Your task to perform on an android device: Go to CNN.com Image 0: 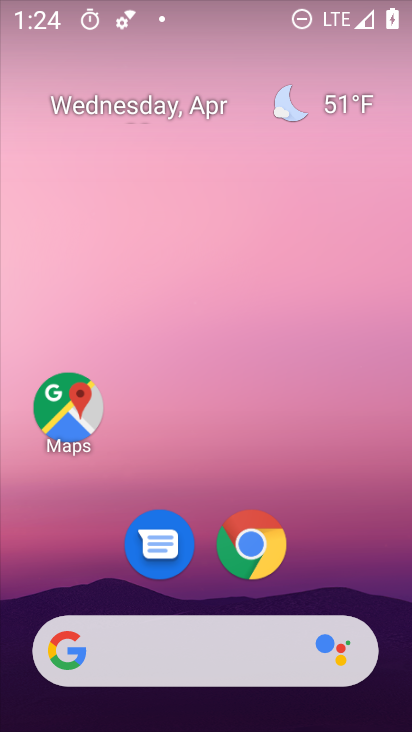
Step 0: drag from (349, 556) to (351, 196)
Your task to perform on an android device: Go to CNN.com Image 1: 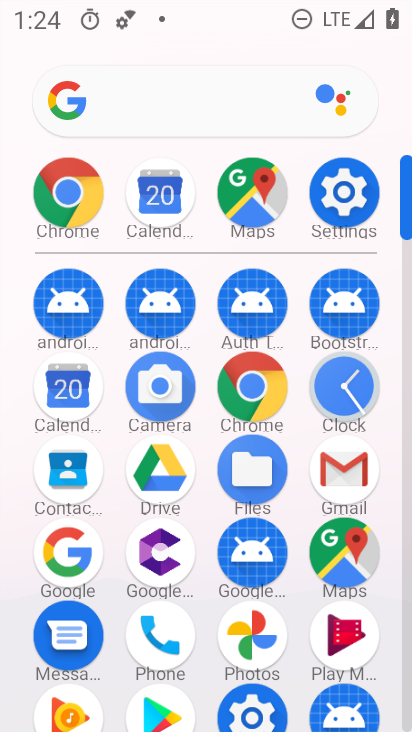
Step 1: click (265, 394)
Your task to perform on an android device: Go to CNN.com Image 2: 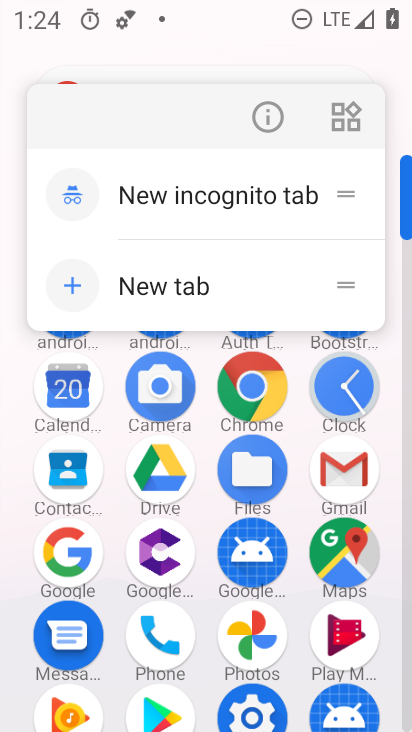
Step 2: click (243, 383)
Your task to perform on an android device: Go to CNN.com Image 3: 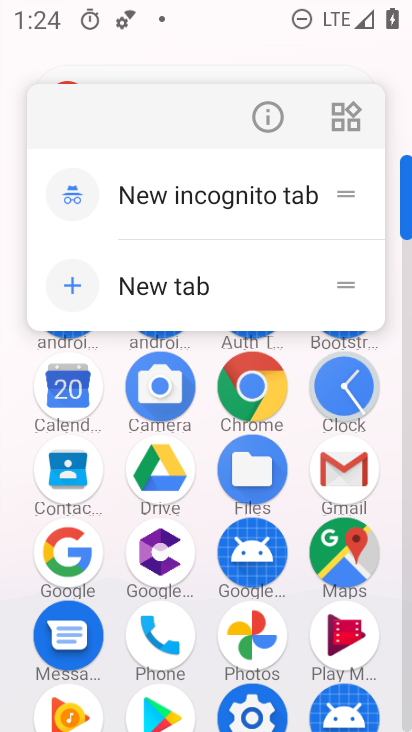
Step 3: click (252, 400)
Your task to perform on an android device: Go to CNN.com Image 4: 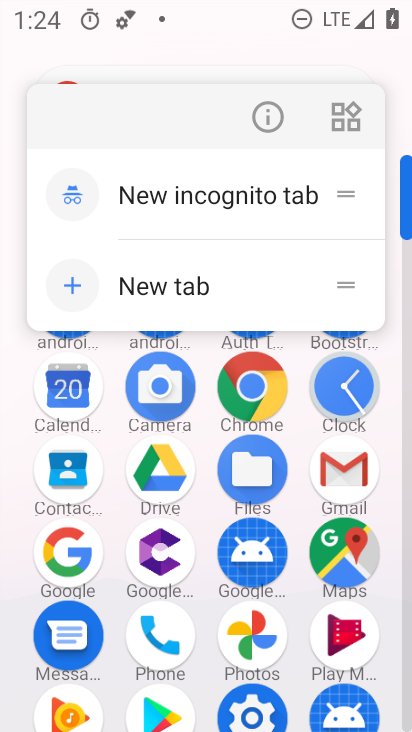
Step 4: click (255, 376)
Your task to perform on an android device: Go to CNN.com Image 5: 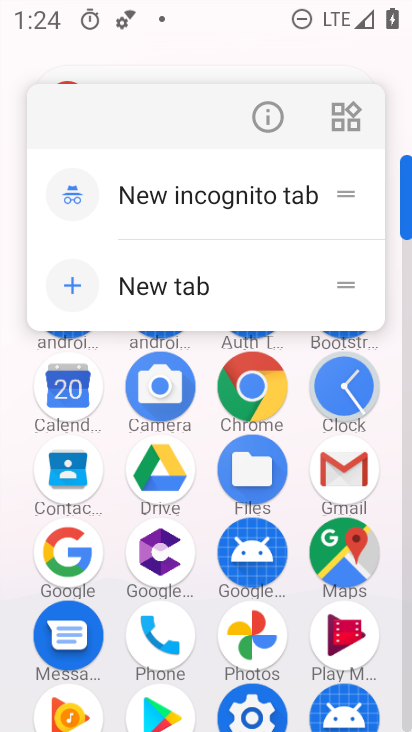
Step 5: click (278, 389)
Your task to perform on an android device: Go to CNN.com Image 6: 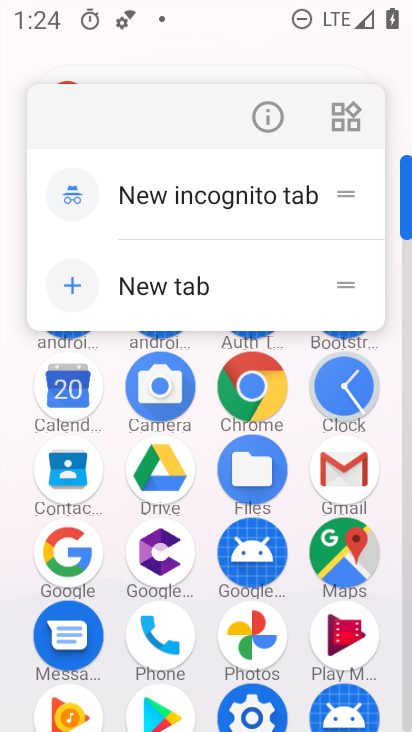
Step 6: click (255, 388)
Your task to perform on an android device: Go to CNN.com Image 7: 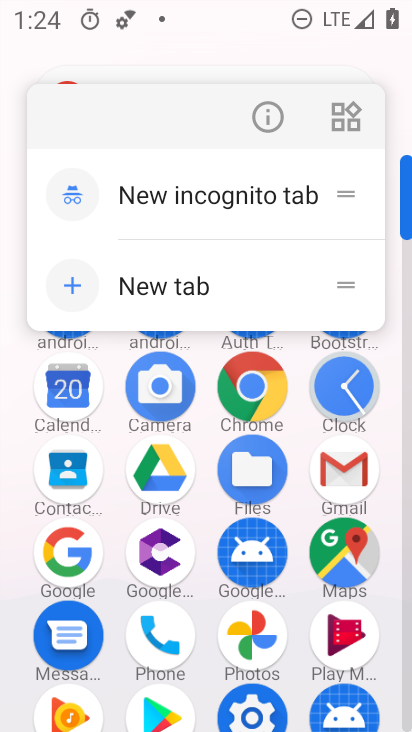
Step 7: click (208, 381)
Your task to perform on an android device: Go to CNN.com Image 8: 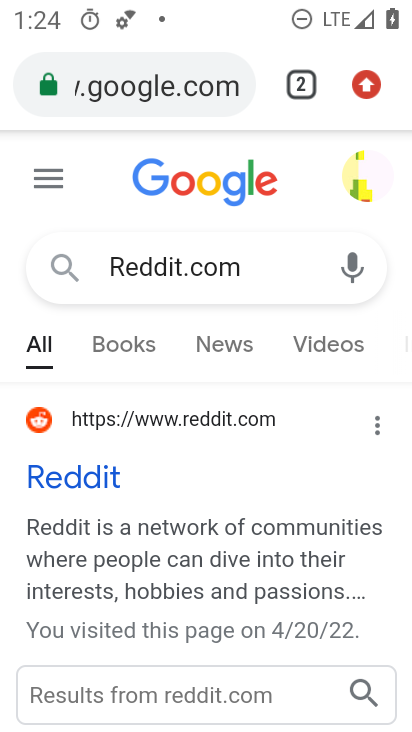
Step 8: click (267, 278)
Your task to perform on an android device: Go to CNN.com Image 9: 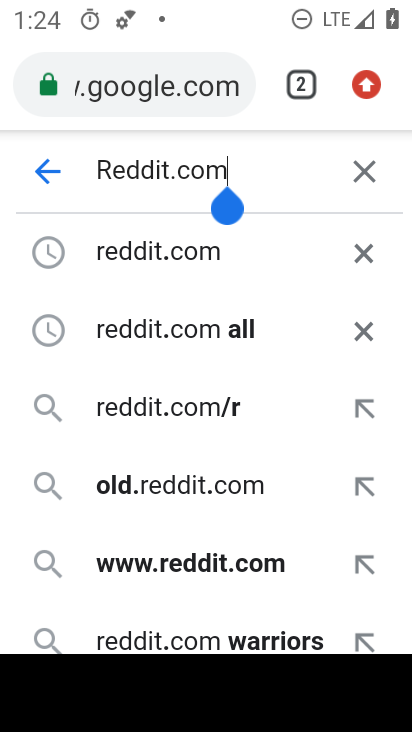
Step 9: click (361, 153)
Your task to perform on an android device: Go to CNN.com Image 10: 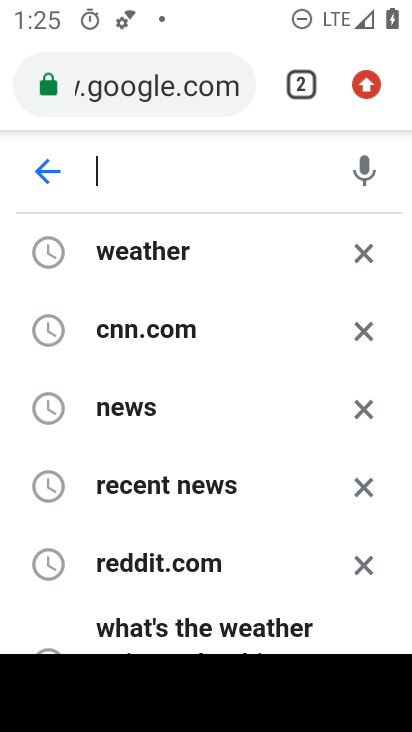
Step 10: type "cnn.com"
Your task to perform on an android device: Go to CNN.com Image 11: 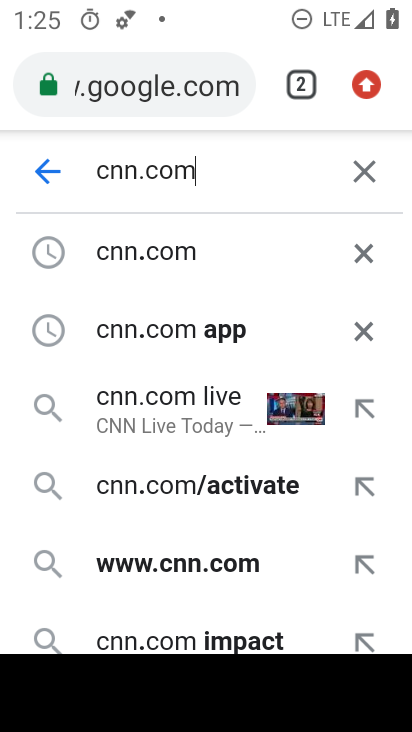
Step 11: click (159, 253)
Your task to perform on an android device: Go to CNN.com Image 12: 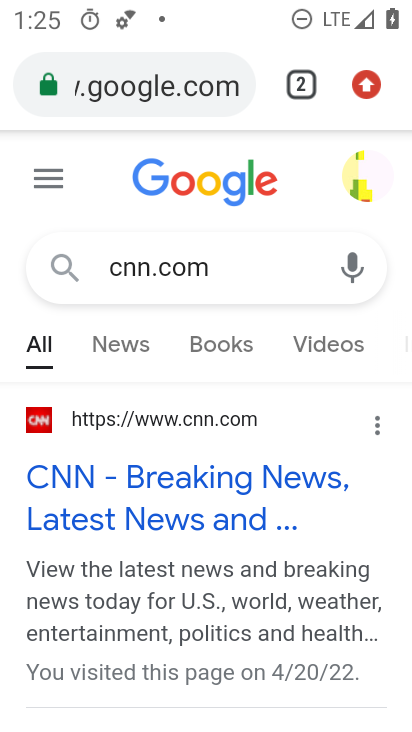
Step 12: task complete